Your task to perform on an android device: turn off smart reply in the gmail app Image 0: 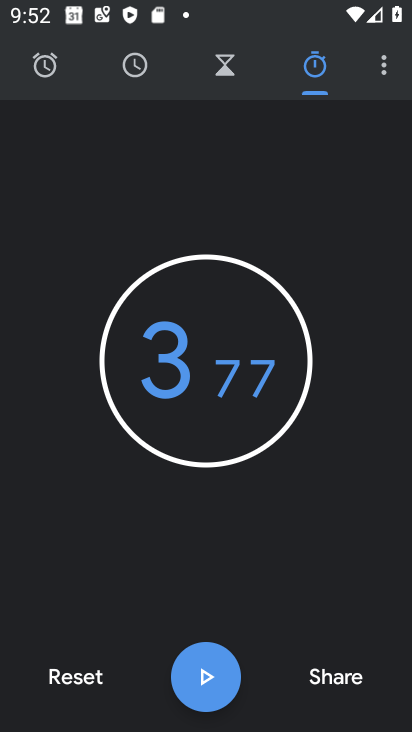
Step 0: press home button
Your task to perform on an android device: turn off smart reply in the gmail app Image 1: 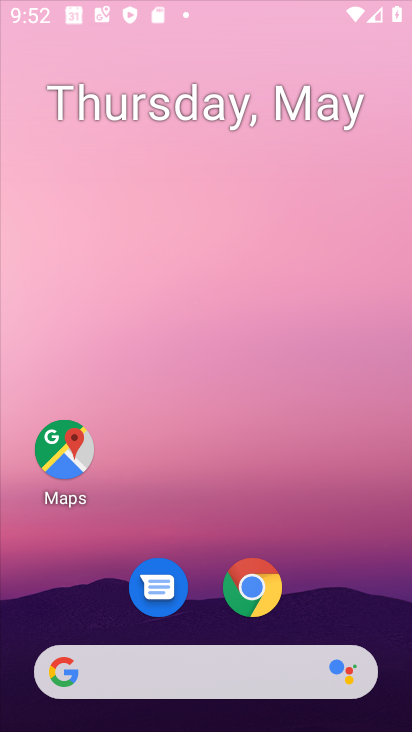
Step 1: click (406, 268)
Your task to perform on an android device: turn off smart reply in the gmail app Image 2: 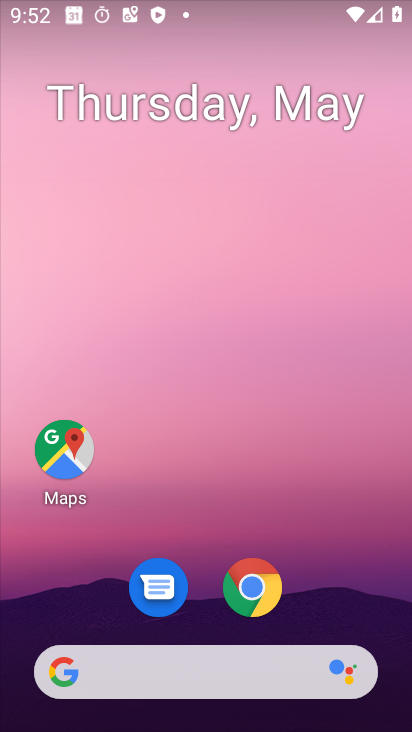
Step 2: drag from (359, 626) to (342, 11)
Your task to perform on an android device: turn off smart reply in the gmail app Image 3: 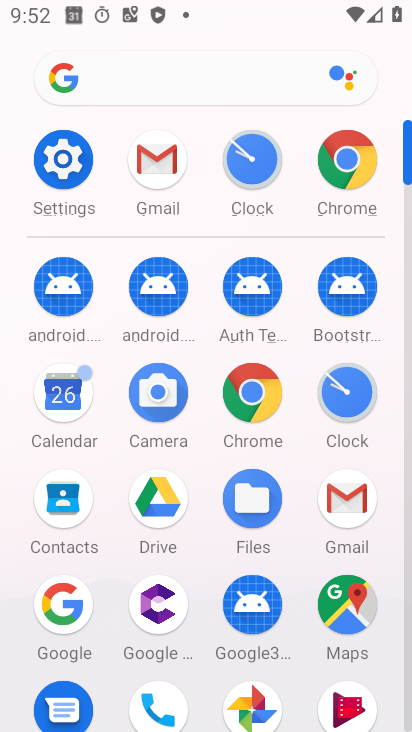
Step 3: click (141, 157)
Your task to perform on an android device: turn off smart reply in the gmail app Image 4: 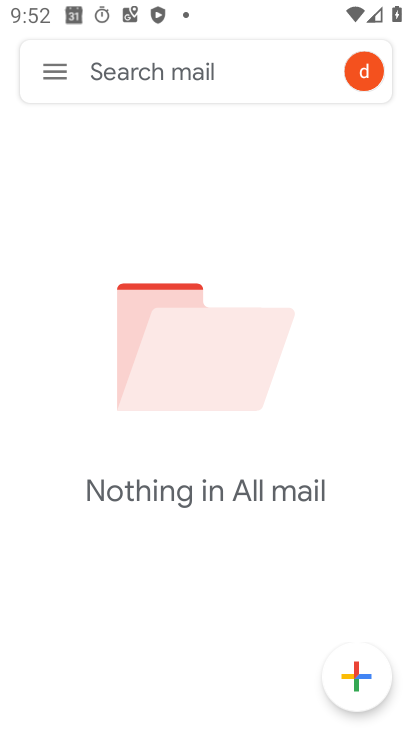
Step 4: click (61, 75)
Your task to perform on an android device: turn off smart reply in the gmail app Image 5: 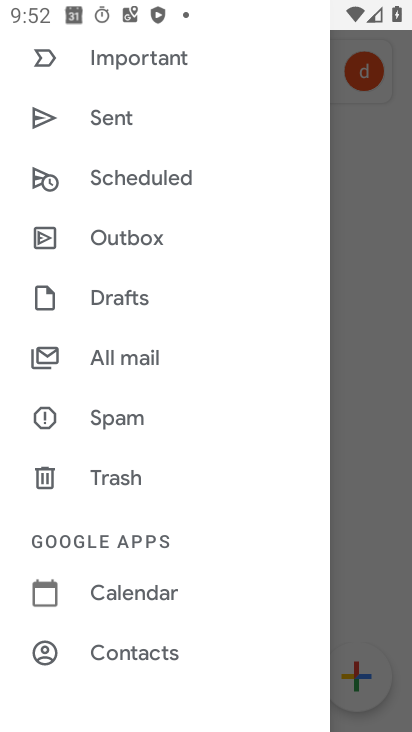
Step 5: drag from (231, 624) to (217, 250)
Your task to perform on an android device: turn off smart reply in the gmail app Image 6: 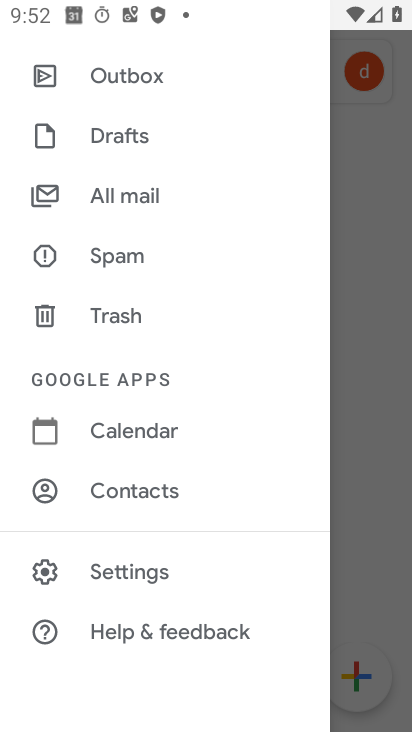
Step 6: click (108, 570)
Your task to perform on an android device: turn off smart reply in the gmail app Image 7: 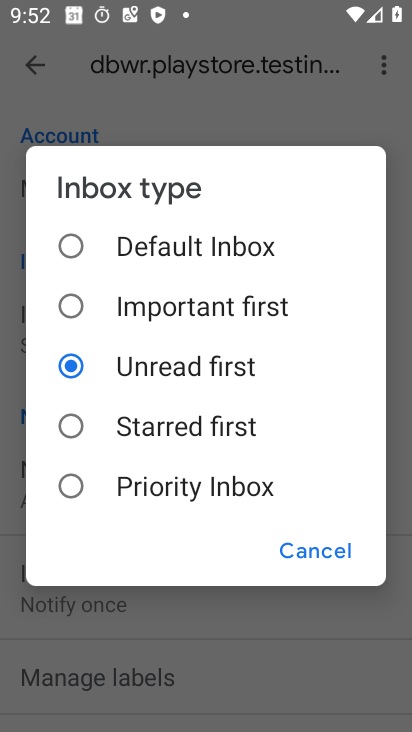
Step 7: click (307, 554)
Your task to perform on an android device: turn off smart reply in the gmail app Image 8: 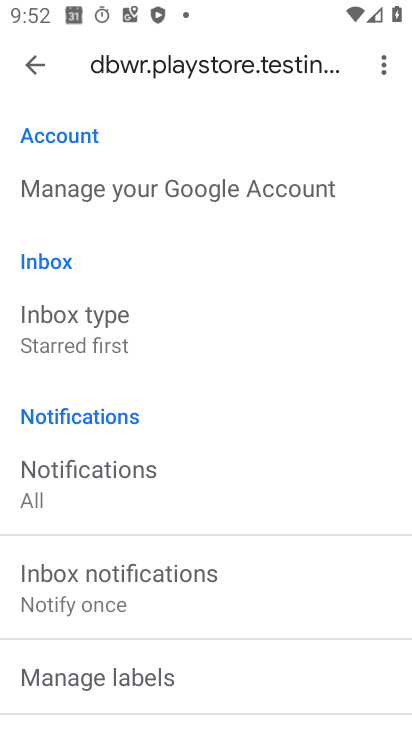
Step 8: drag from (145, 579) to (157, 61)
Your task to perform on an android device: turn off smart reply in the gmail app Image 9: 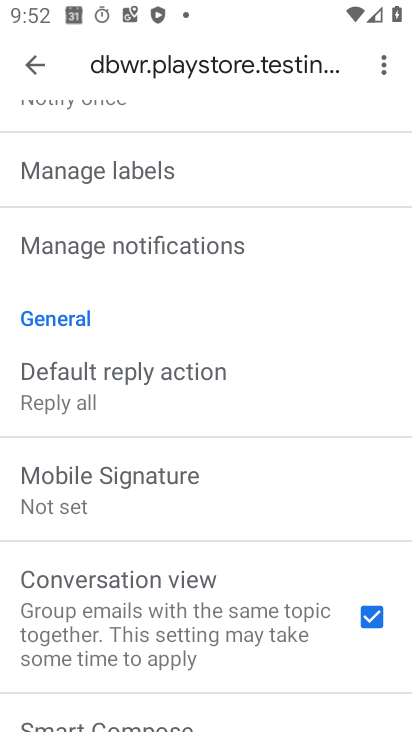
Step 9: drag from (142, 528) to (139, 109)
Your task to perform on an android device: turn off smart reply in the gmail app Image 10: 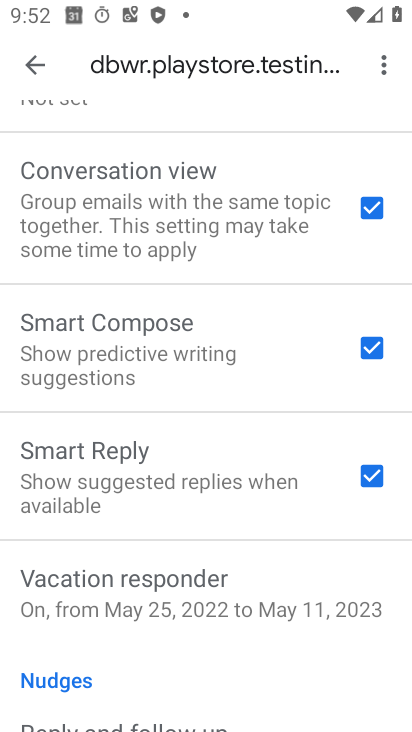
Step 10: click (371, 473)
Your task to perform on an android device: turn off smart reply in the gmail app Image 11: 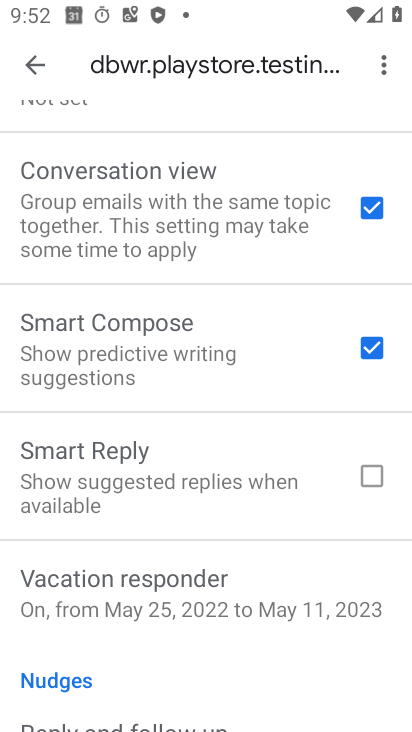
Step 11: task complete